Your task to perform on an android device: How big is the earth? Image 0: 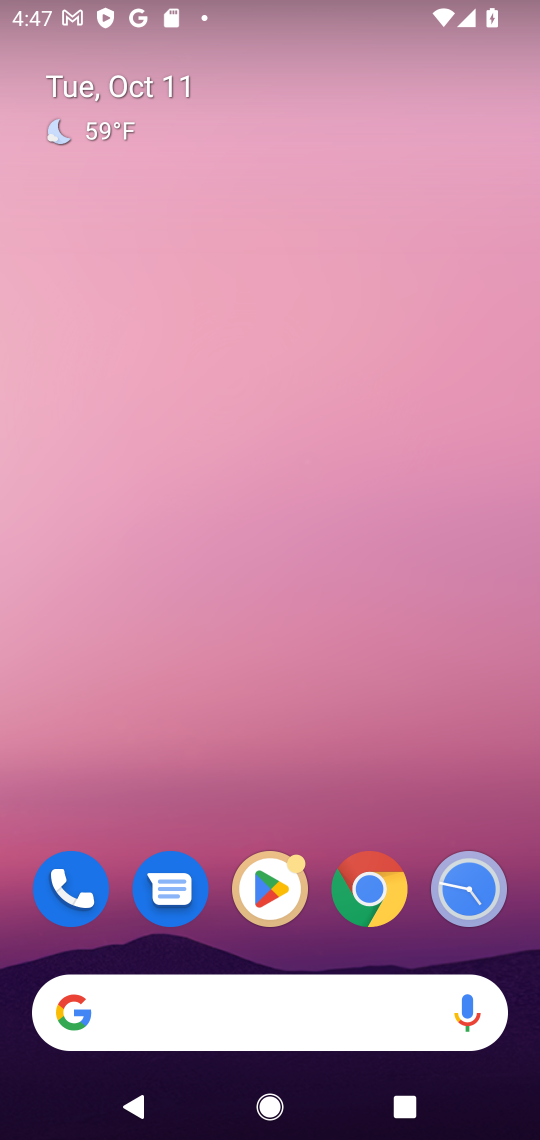
Step 0: drag from (275, 894) to (283, 388)
Your task to perform on an android device: How big is the earth? Image 1: 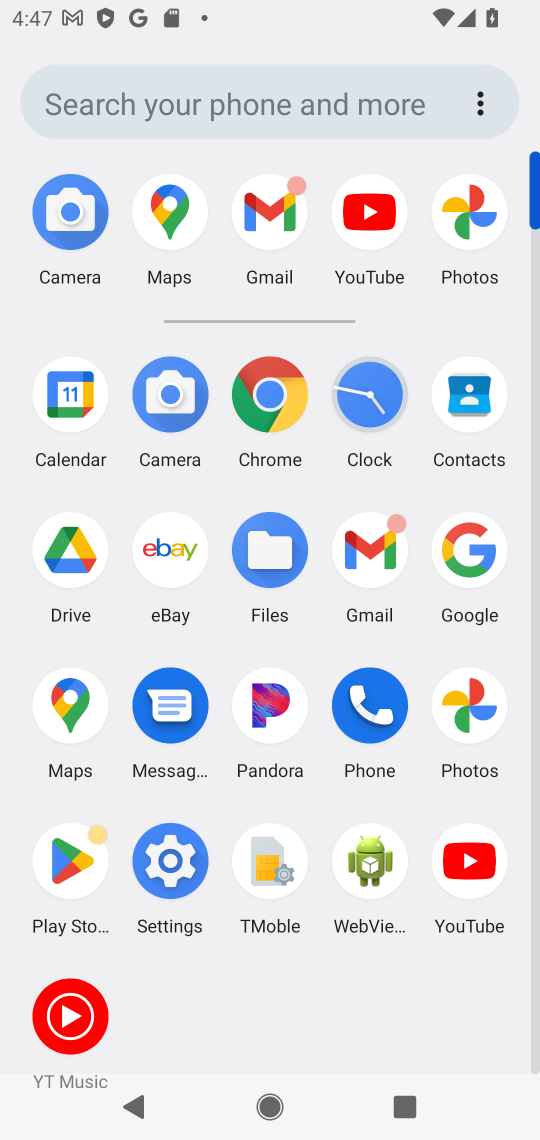
Step 1: click (479, 537)
Your task to perform on an android device: How big is the earth? Image 2: 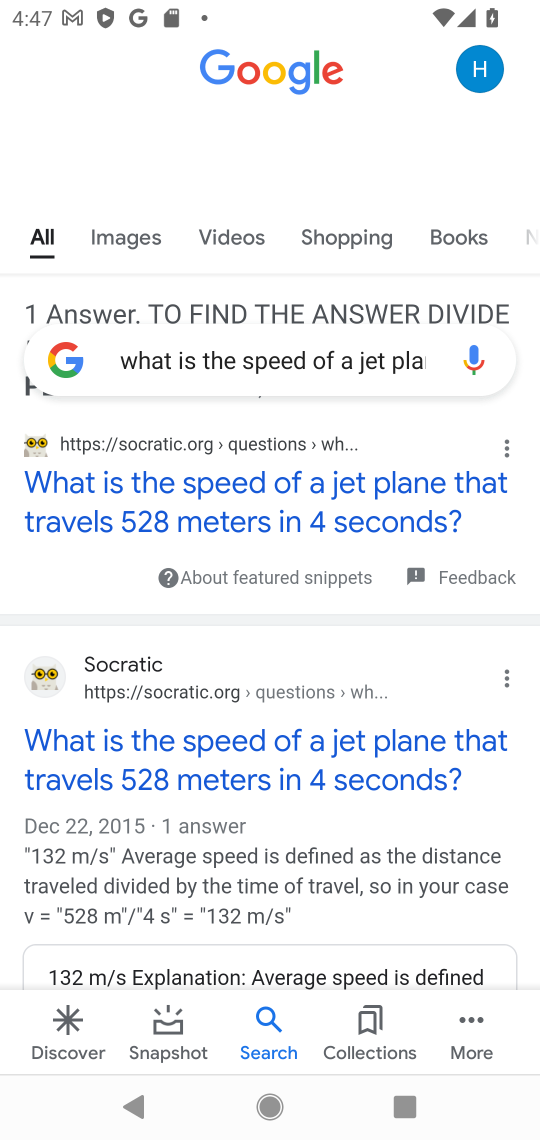
Step 2: click (274, 360)
Your task to perform on an android device: How big is the earth? Image 3: 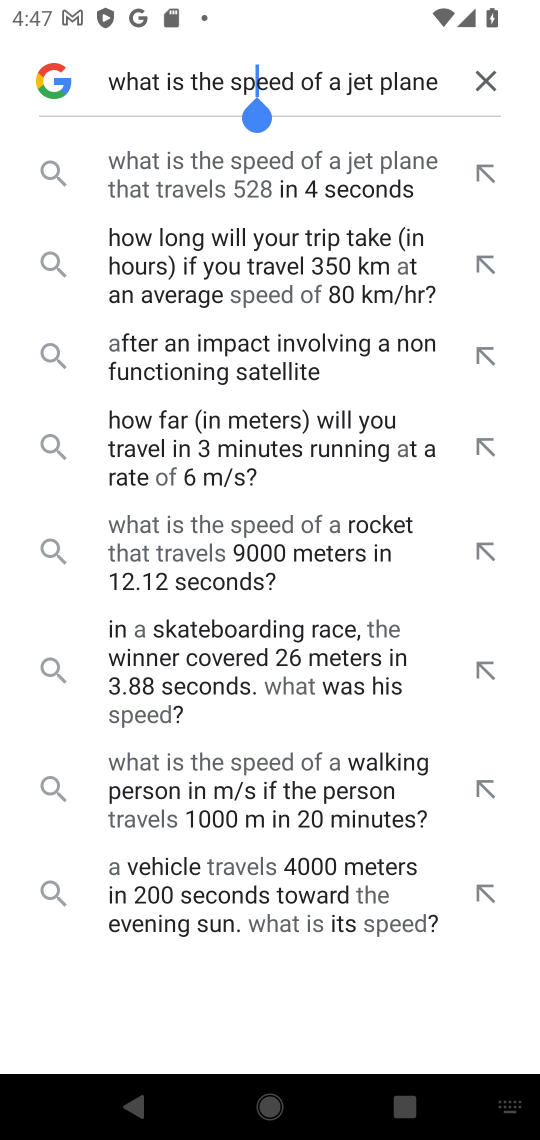
Step 3: click (480, 66)
Your task to perform on an android device: How big is the earth? Image 4: 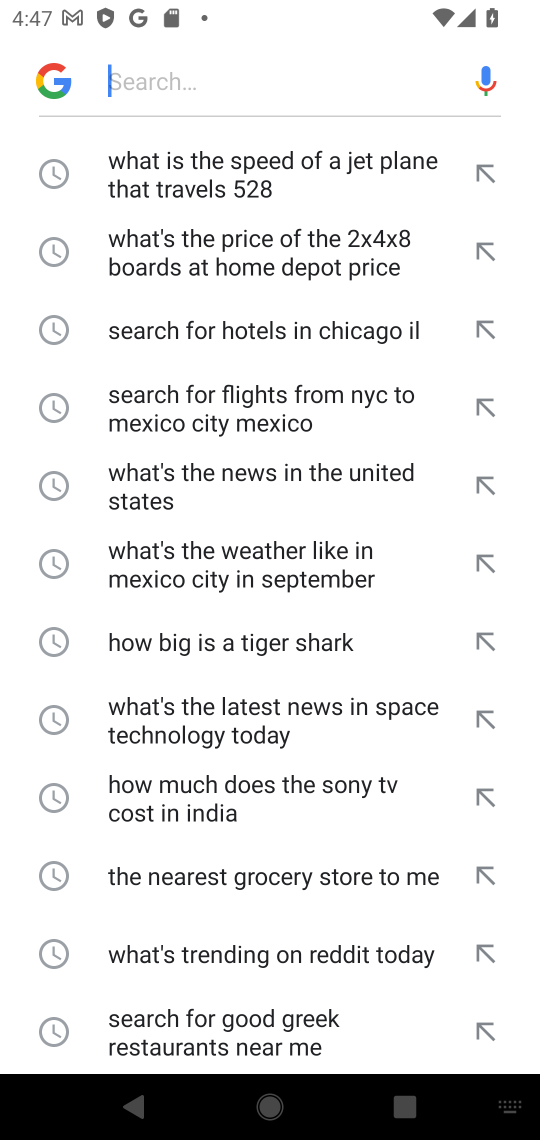
Step 4: click (312, 79)
Your task to perform on an android device: How big is the earth? Image 5: 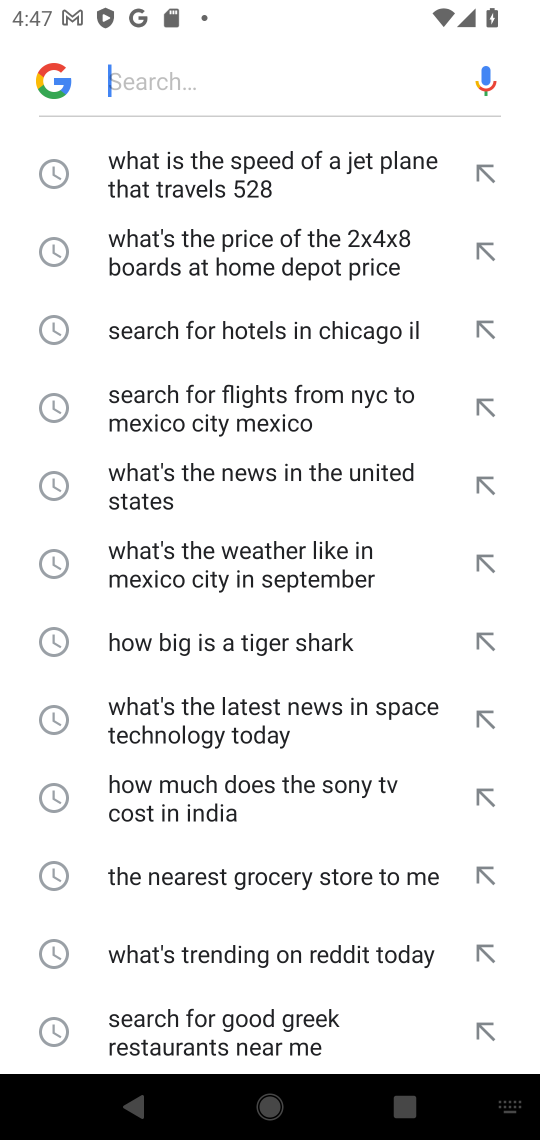
Step 5: type "How big is the earth? "
Your task to perform on an android device: How big is the earth? Image 6: 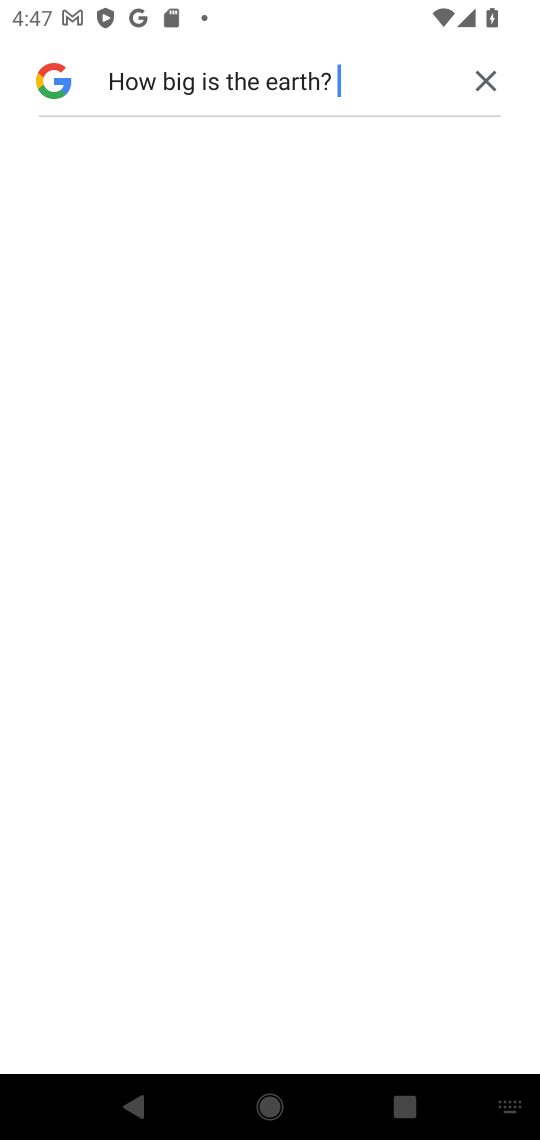
Step 6: click (175, 172)
Your task to perform on an android device: How big is the earth? Image 7: 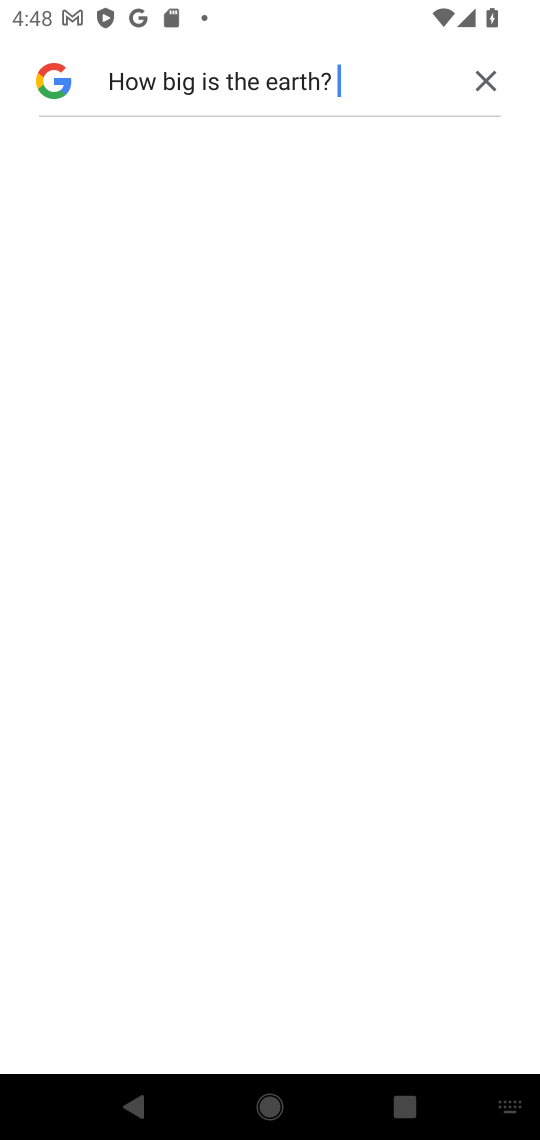
Step 7: click (489, 78)
Your task to perform on an android device: How big is the earth? Image 8: 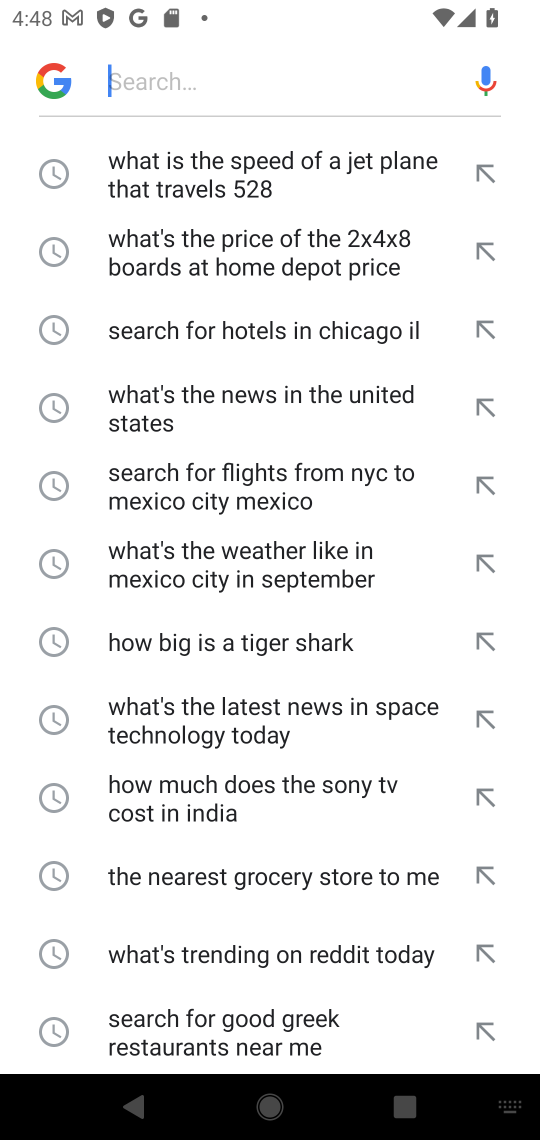
Step 8: click (202, 67)
Your task to perform on an android device: How big is the earth? Image 9: 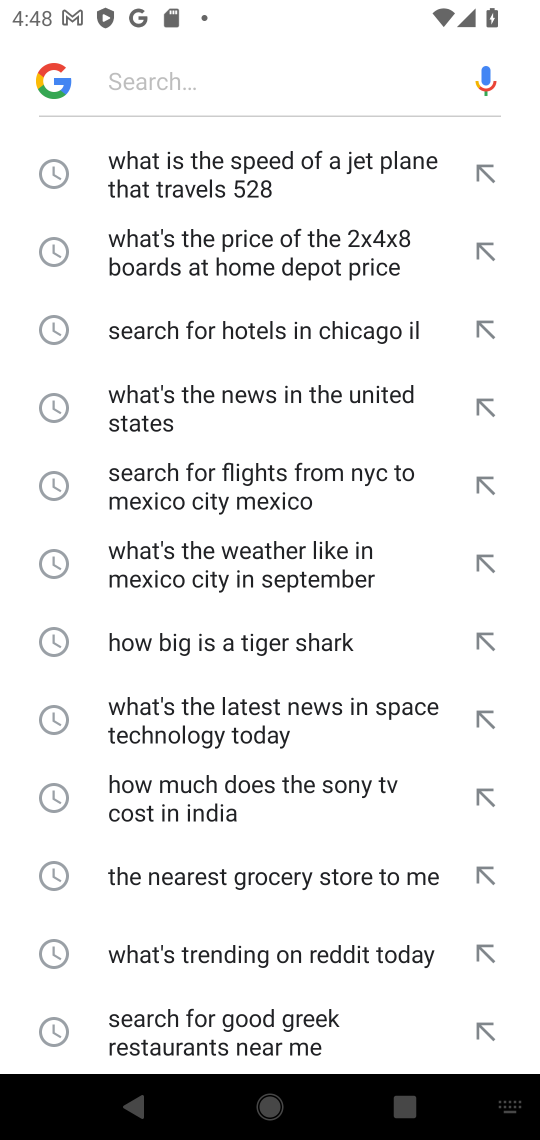
Step 9: type "How big is the earth "
Your task to perform on an android device: How big is the earth? Image 10: 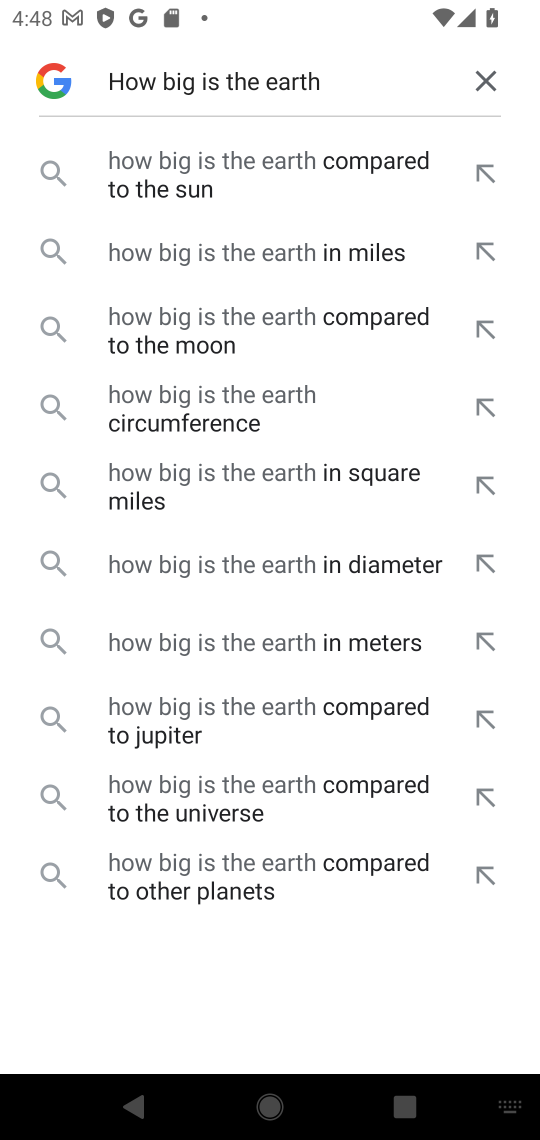
Step 10: click (176, 180)
Your task to perform on an android device: How big is the earth? Image 11: 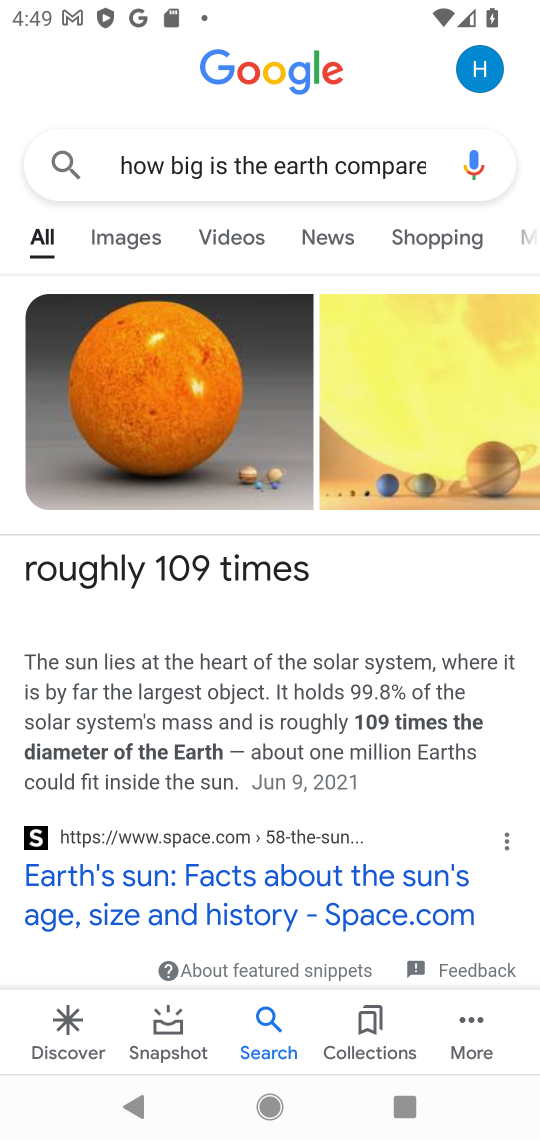
Step 11: task complete